Your task to perform on an android device: move a message to another label in the gmail app Image 0: 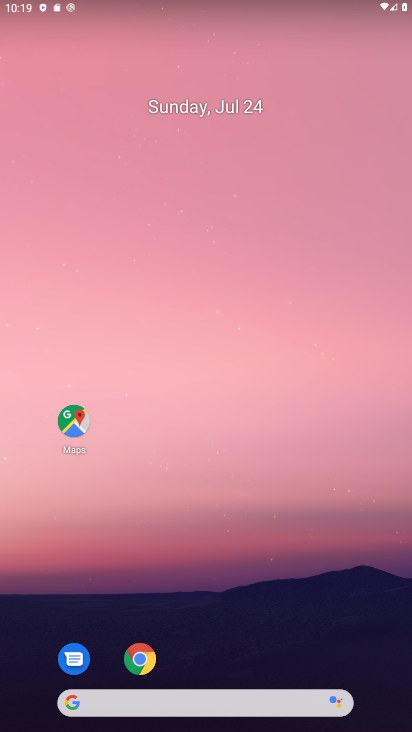
Step 0: drag from (258, 692) to (191, 25)
Your task to perform on an android device: move a message to another label in the gmail app Image 1: 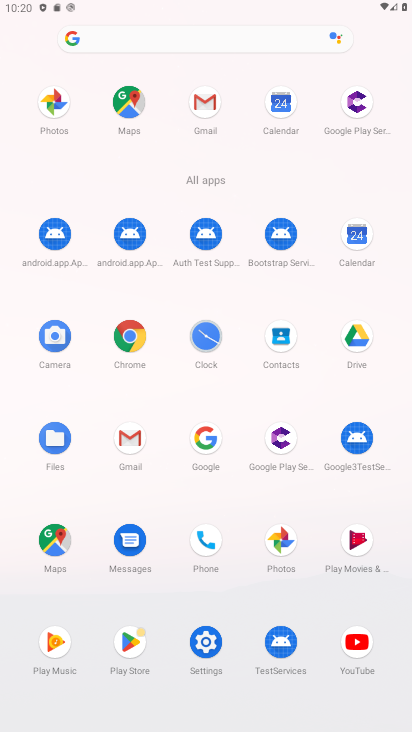
Step 1: click (115, 403)
Your task to perform on an android device: move a message to another label in the gmail app Image 2: 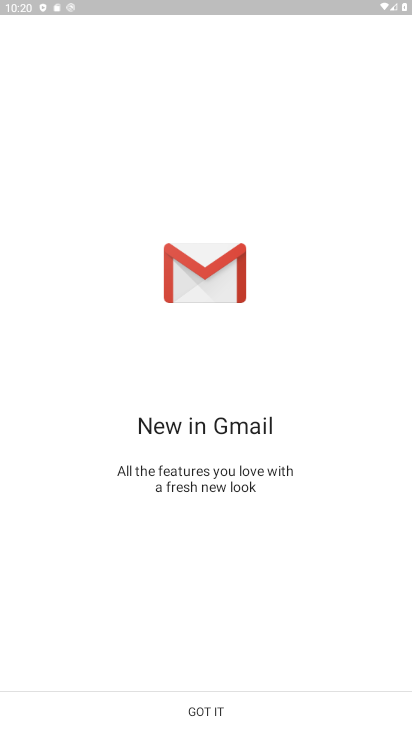
Step 2: click (239, 712)
Your task to perform on an android device: move a message to another label in the gmail app Image 3: 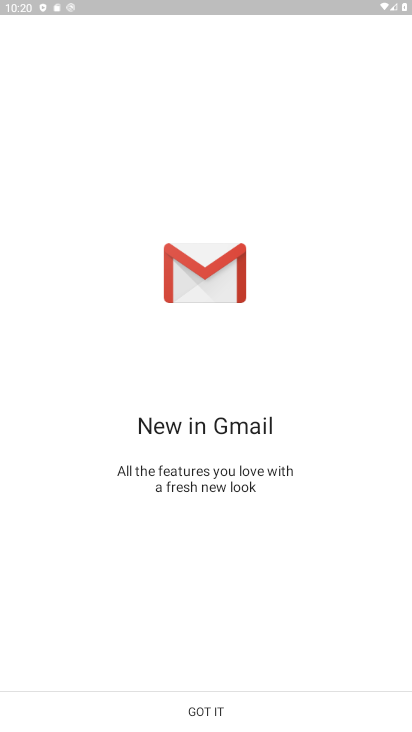
Step 3: click (239, 712)
Your task to perform on an android device: move a message to another label in the gmail app Image 4: 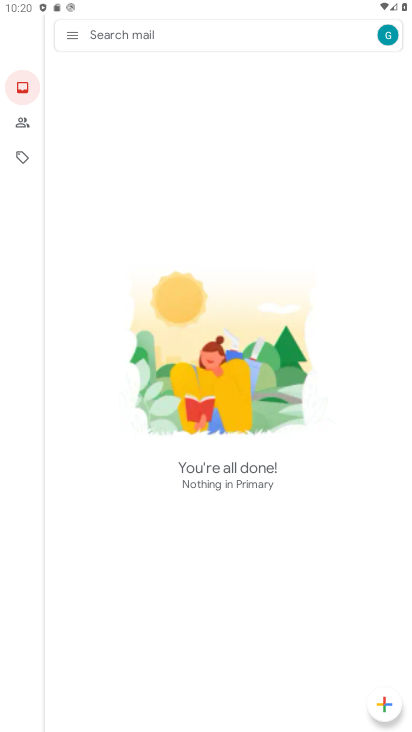
Step 4: task complete